Your task to perform on an android device: Open internet settings Image 0: 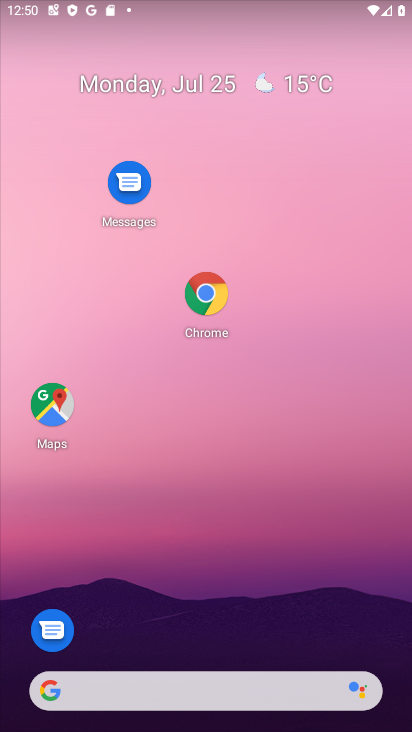
Step 0: drag from (257, 450) to (262, 27)
Your task to perform on an android device: Open internet settings Image 1: 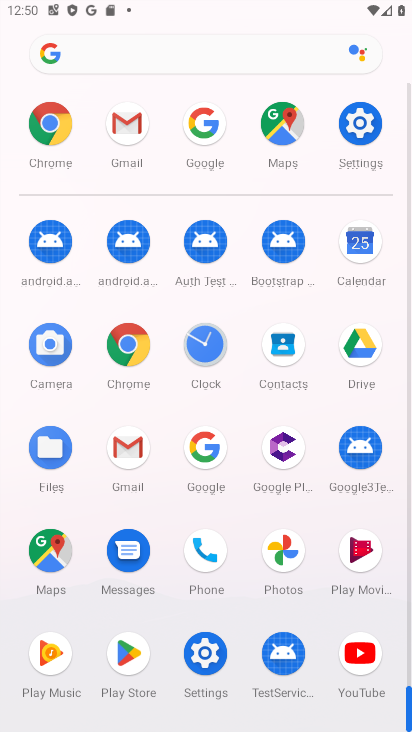
Step 1: click (357, 120)
Your task to perform on an android device: Open internet settings Image 2: 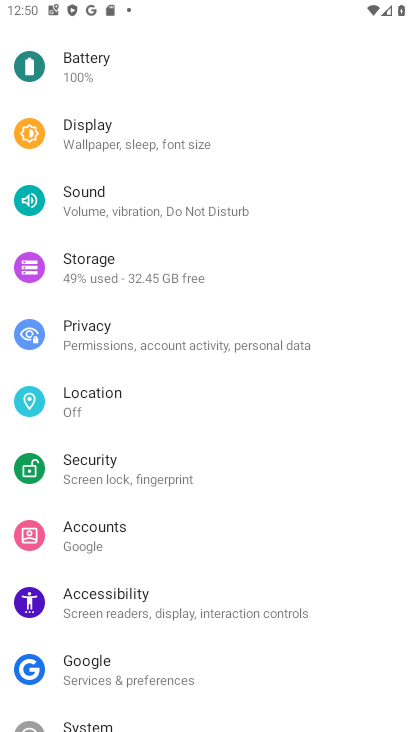
Step 2: drag from (246, 147) to (241, 658)
Your task to perform on an android device: Open internet settings Image 3: 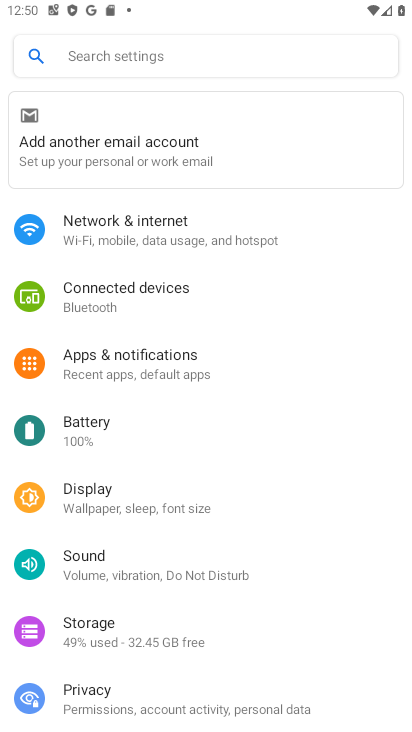
Step 3: click (141, 237)
Your task to perform on an android device: Open internet settings Image 4: 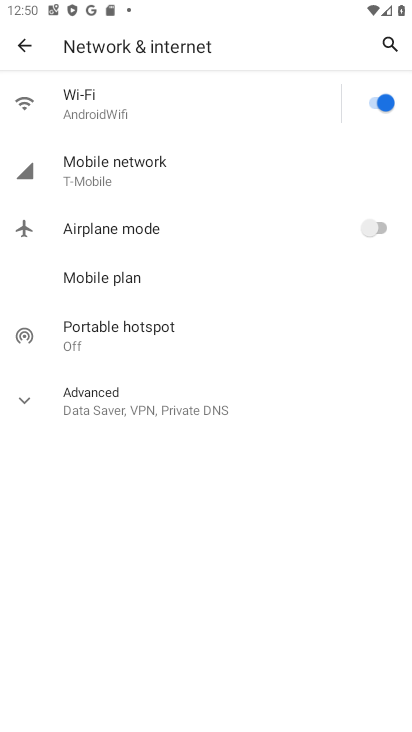
Step 4: task complete